Your task to perform on an android device: search for starred emails in the gmail app Image 0: 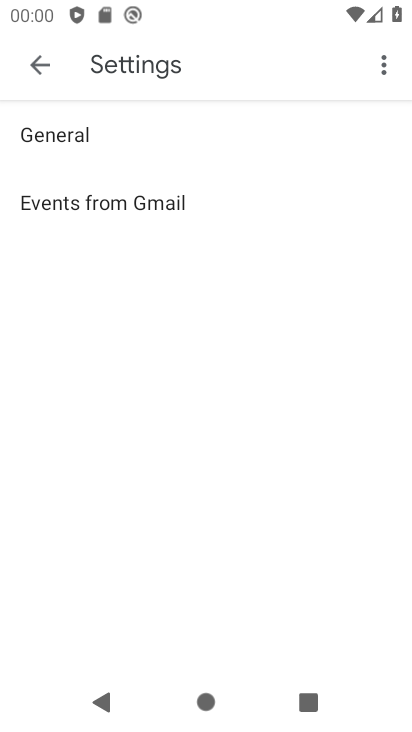
Step 0: press back button
Your task to perform on an android device: search for starred emails in the gmail app Image 1: 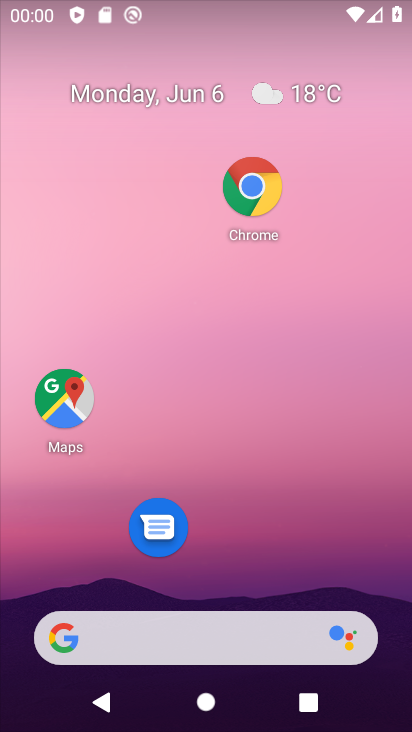
Step 1: drag from (198, 577) to (193, 175)
Your task to perform on an android device: search for starred emails in the gmail app Image 2: 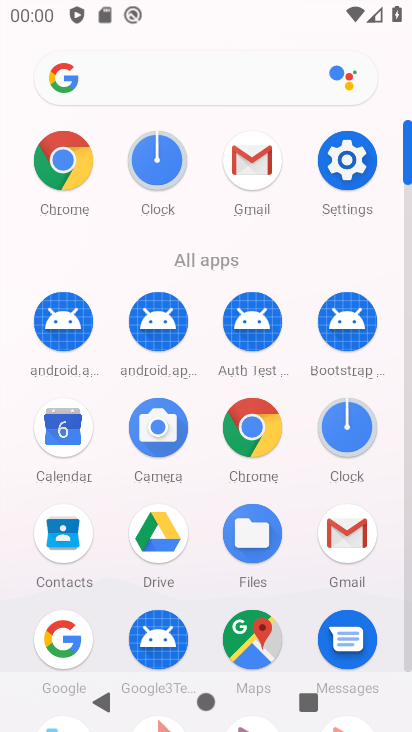
Step 2: drag from (302, 517) to (276, 214)
Your task to perform on an android device: search for starred emails in the gmail app Image 3: 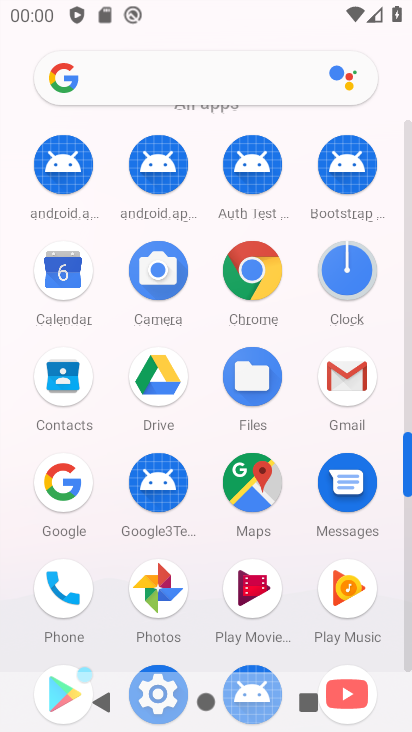
Step 3: drag from (309, 434) to (311, 316)
Your task to perform on an android device: search for starred emails in the gmail app Image 4: 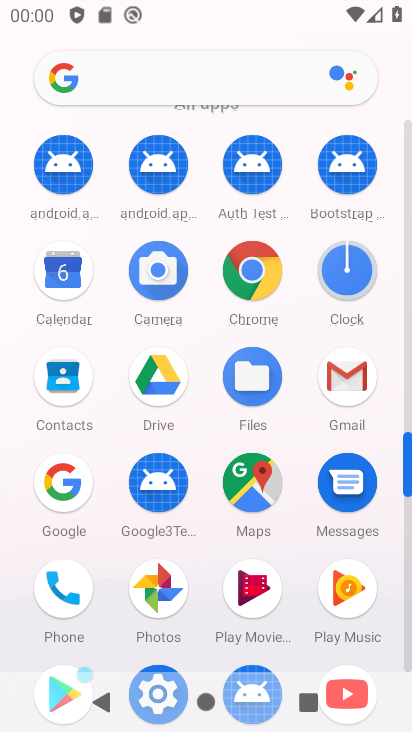
Step 4: click (349, 404)
Your task to perform on an android device: search for starred emails in the gmail app Image 5: 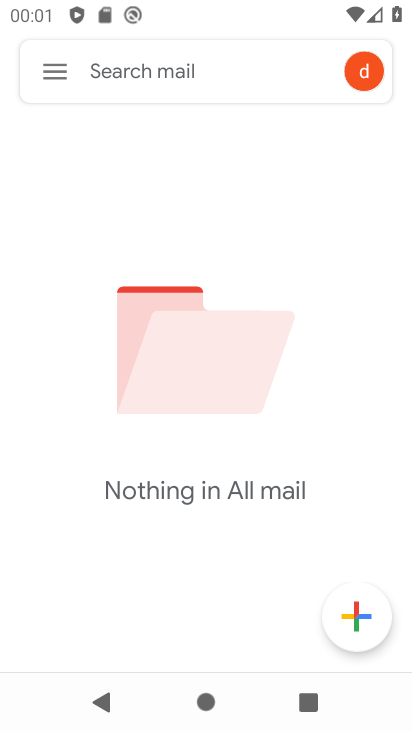
Step 5: click (58, 74)
Your task to perform on an android device: search for starred emails in the gmail app Image 6: 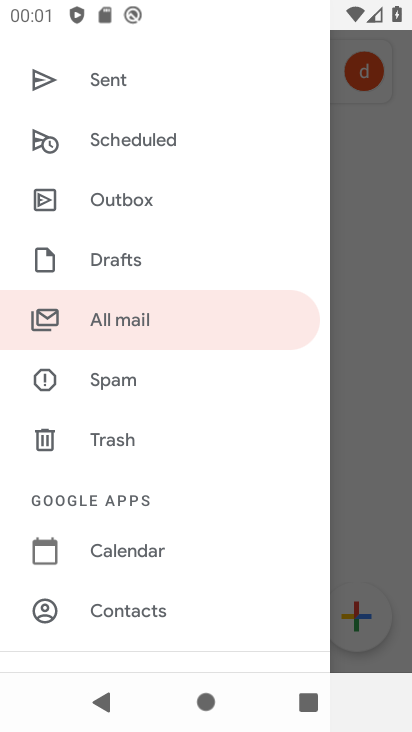
Step 6: drag from (161, 186) to (147, 487)
Your task to perform on an android device: search for starred emails in the gmail app Image 7: 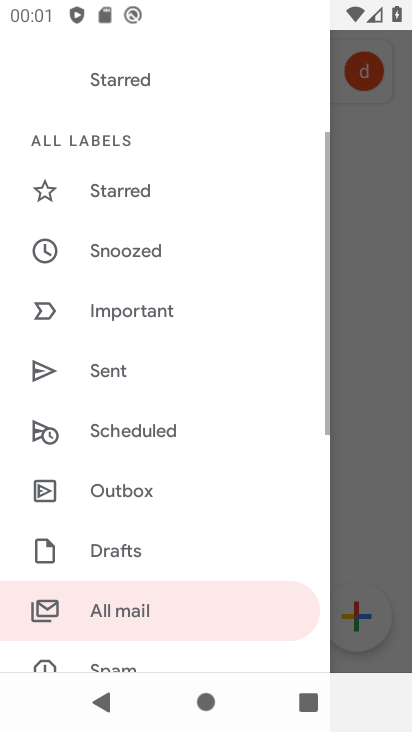
Step 7: click (126, 80)
Your task to perform on an android device: search for starred emails in the gmail app Image 8: 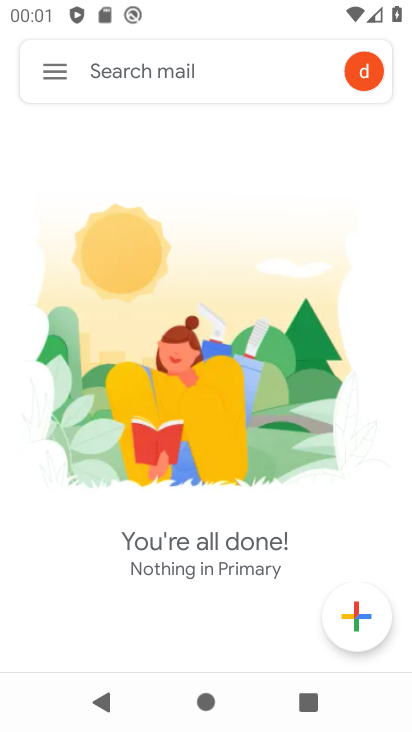
Step 8: task complete